Your task to perform on an android device: turn off notifications in google photos Image 0: 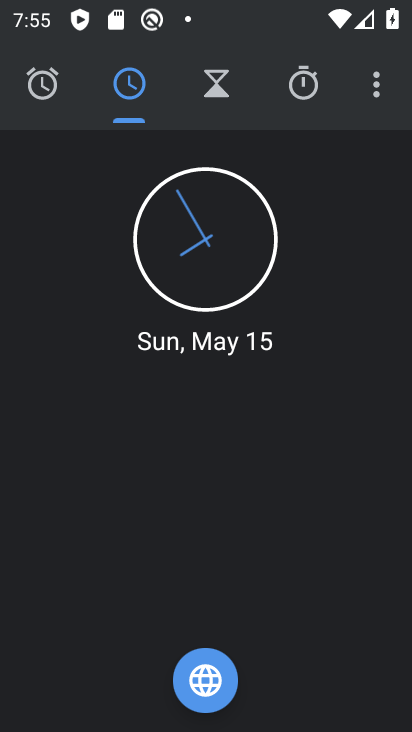
Step 0: press home button
Your task to perform on an android device: turn off notifications in google photos Image 1: 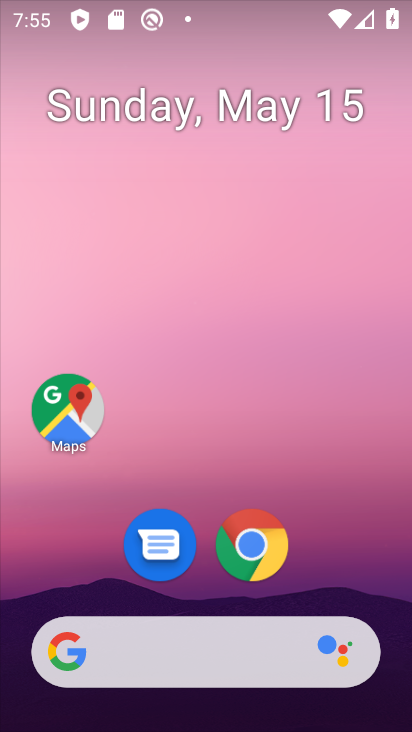
Step 1: drag from (366, 547) to (359, 153)
Your task to perform on an android device: turn off notifications in google photos Image 2: 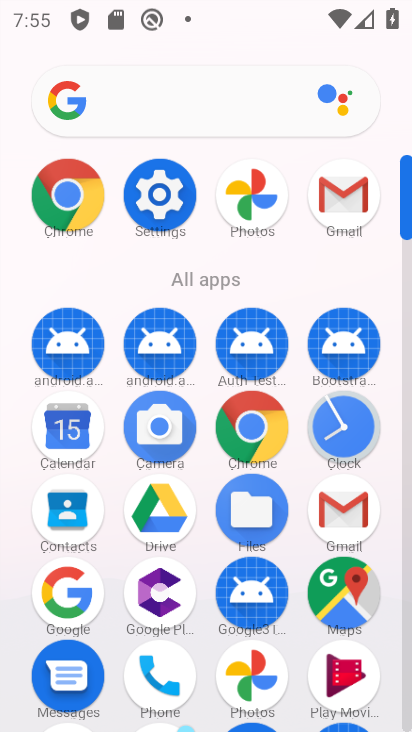
Step 2: click (244, 687)
Your task to perform on an android device: turn off notifications in google photos Image 3: 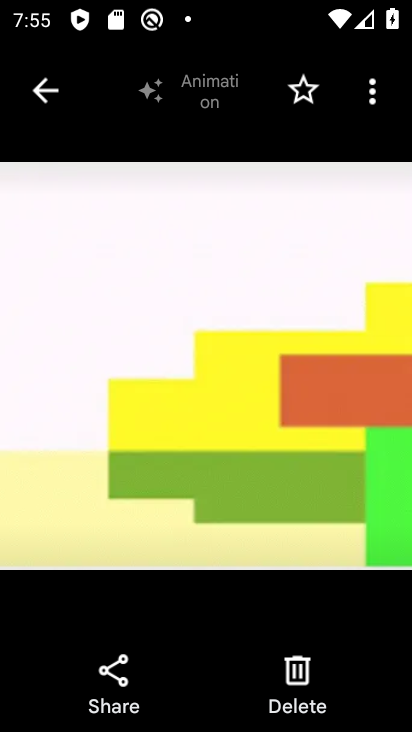
Step 3: click (44, 96)
Your task to perform on an android device: turn off notifications in google photos Image 4: 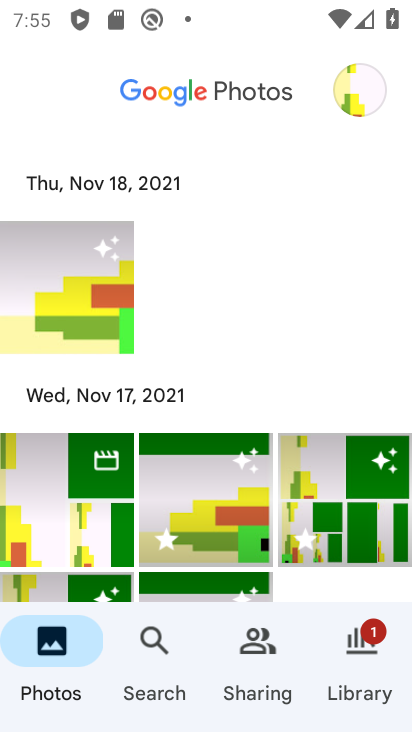
Step 4: click (344, 88)
Your task to perform on an android device: turn off notifications in google photos Image 5: 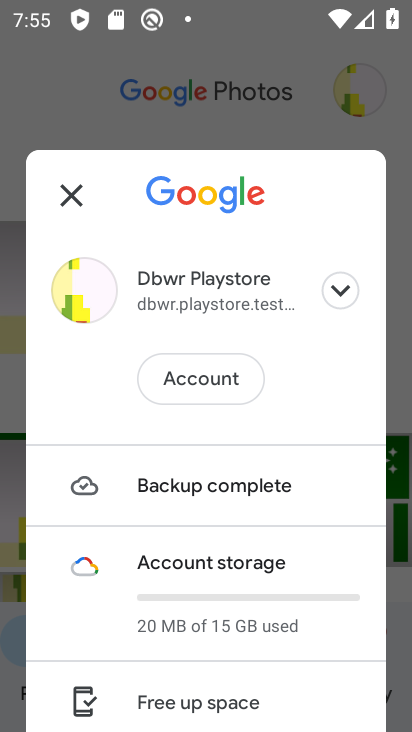
Step 5: drag from (335, 513) to (333, 272)
Your task to perform on an android device: turn off notifications in google photos Image 6: 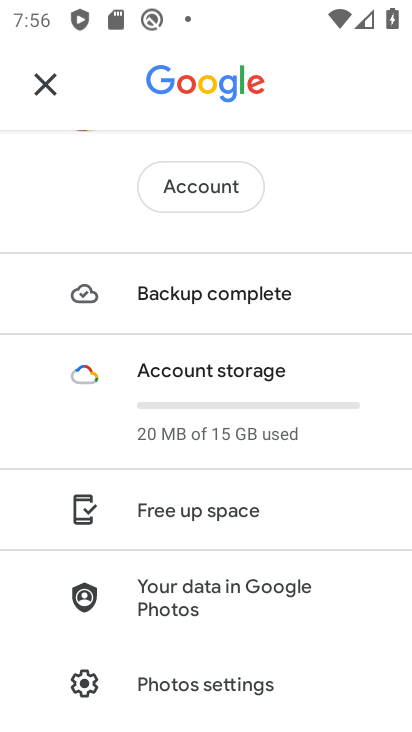
Step 6: click (217, 695)
Your task to perform on an android device: turn off notifications in google photos Image 7: 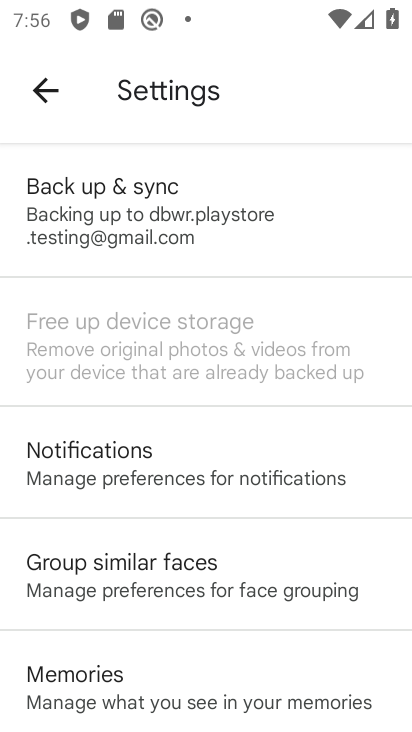
Step 7: click (171, 479)
Your task to perform on an android device: turn off notifications in google photos Image 8: 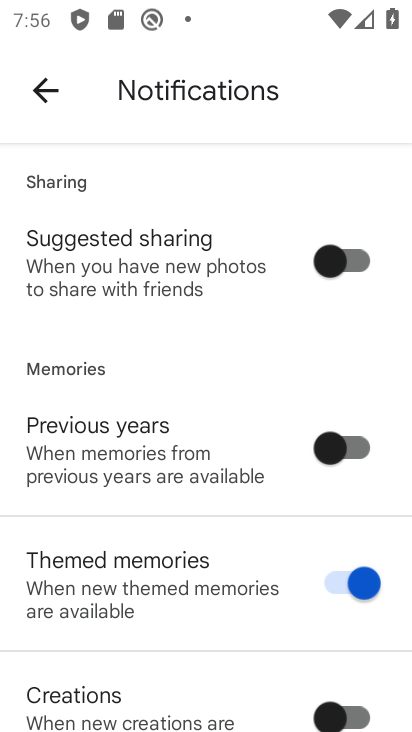
Step 8: drag from (260, 626) to (295, 246)
Your task to perform on an android device: turn off notifications in google photos Image 9: 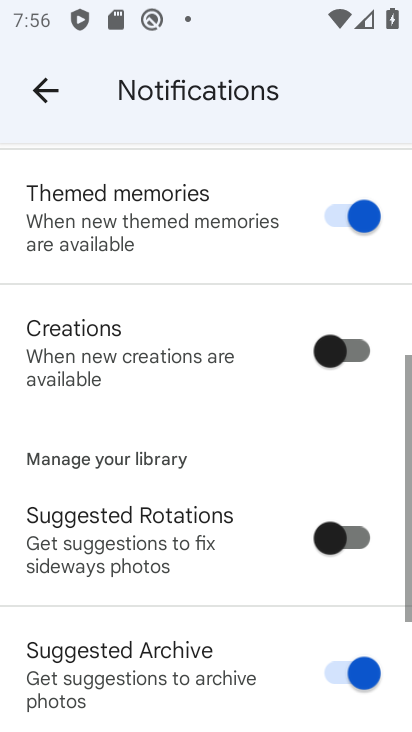
Step 9: drag from (225, 440) to (229, 302)
Your task to perform on an android device: turn off notifications in google photos Image 10: 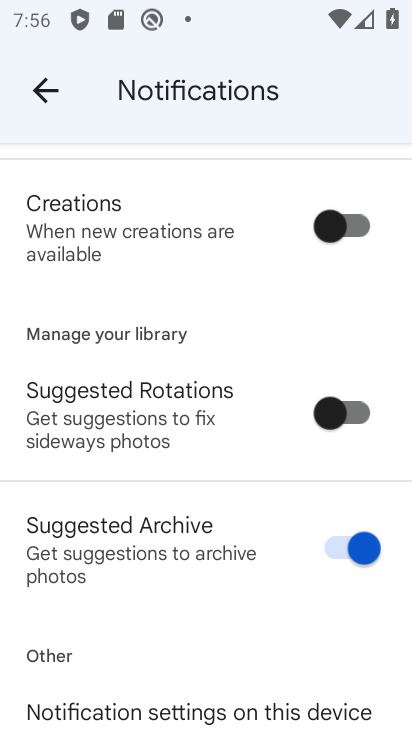
Step 10: drag from (218, 546) to (249, 269)
Your task to perform on an android device: turn off notifications in google photos Image 11: 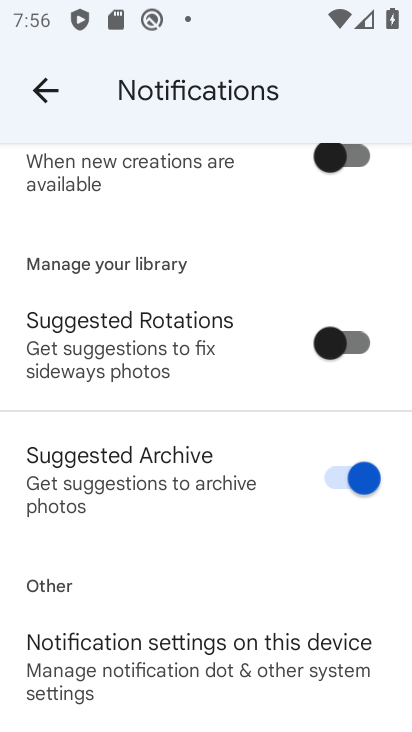
Step 11: click (235, 671)
Your task to perform on an android device: turn off notifications in google photos Image 12: 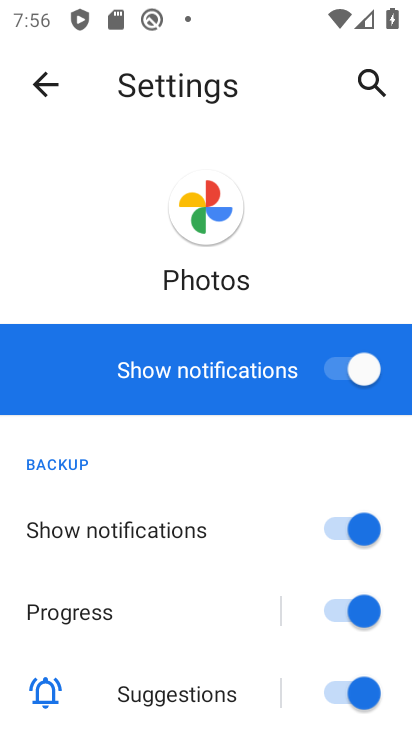
Step 12: click (343, 381)
Your task to perform on an android device: turn off notifications in google photos Image 13: 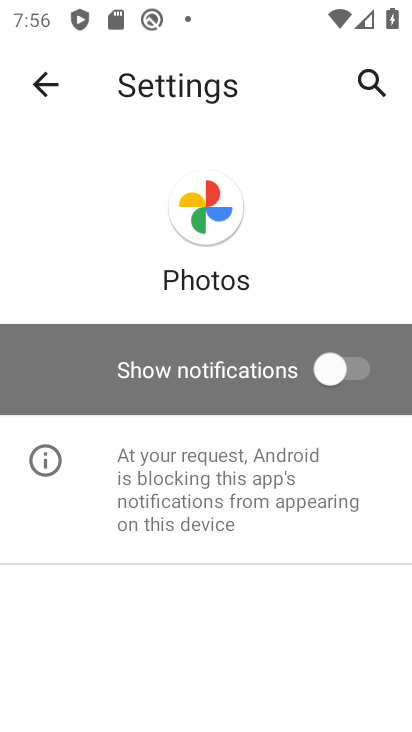
Step 13: task complete